Your task to perform on an android device: turn off notifications in google photos Image 0: 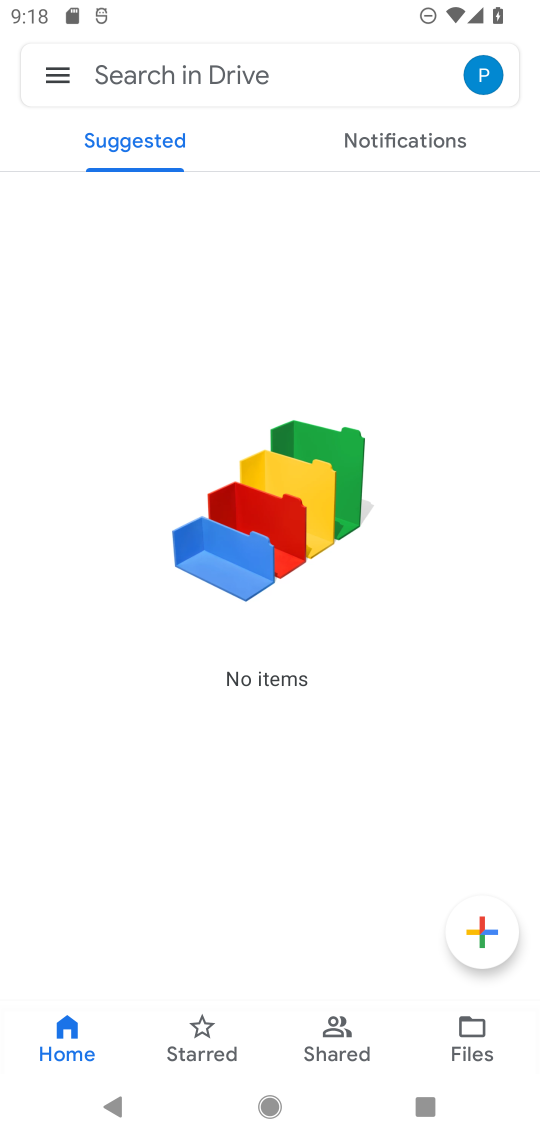
Step 0: click (26, 51)
Your task to perform on an android device: turn off notifications in google photos Image 1: 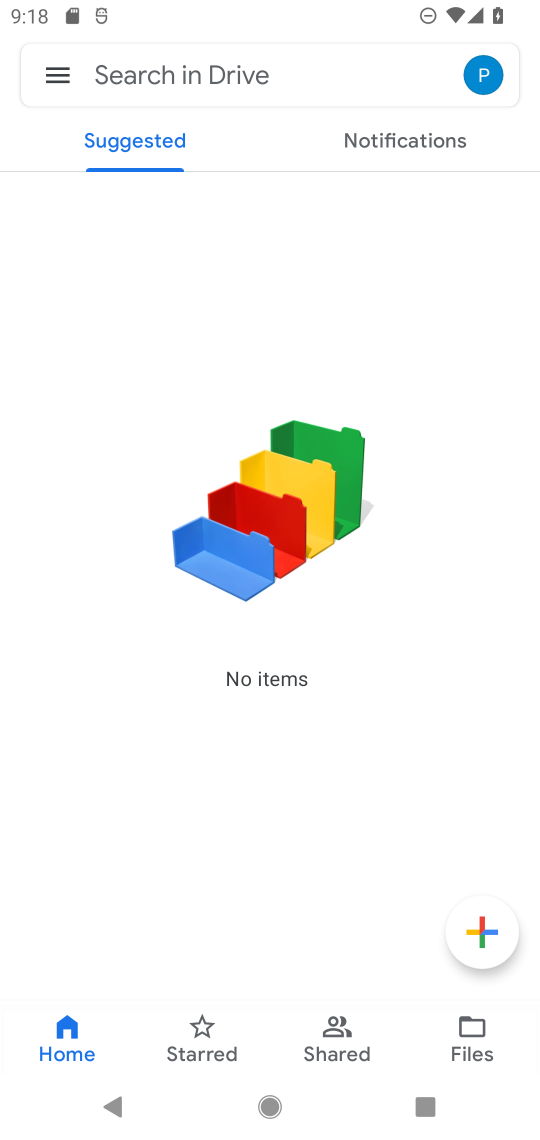
Step 1: click (67, 80)
Your task to perform on an android device: turn off notifications in google photos Image 2: 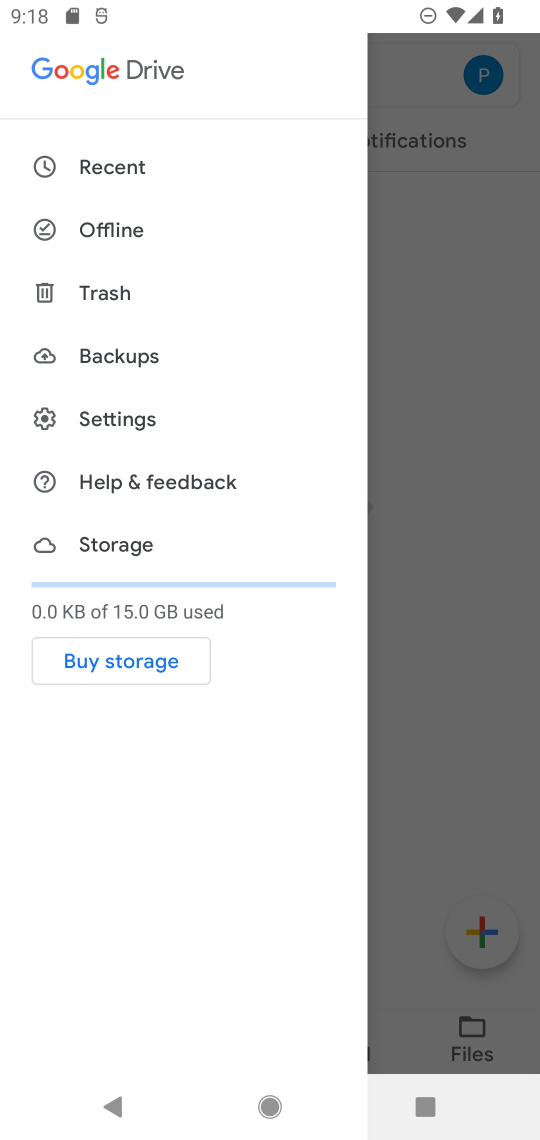
Step 2: click (92, 416)
Your task to perform on an android device: turn off notifications in google photos Image 3: 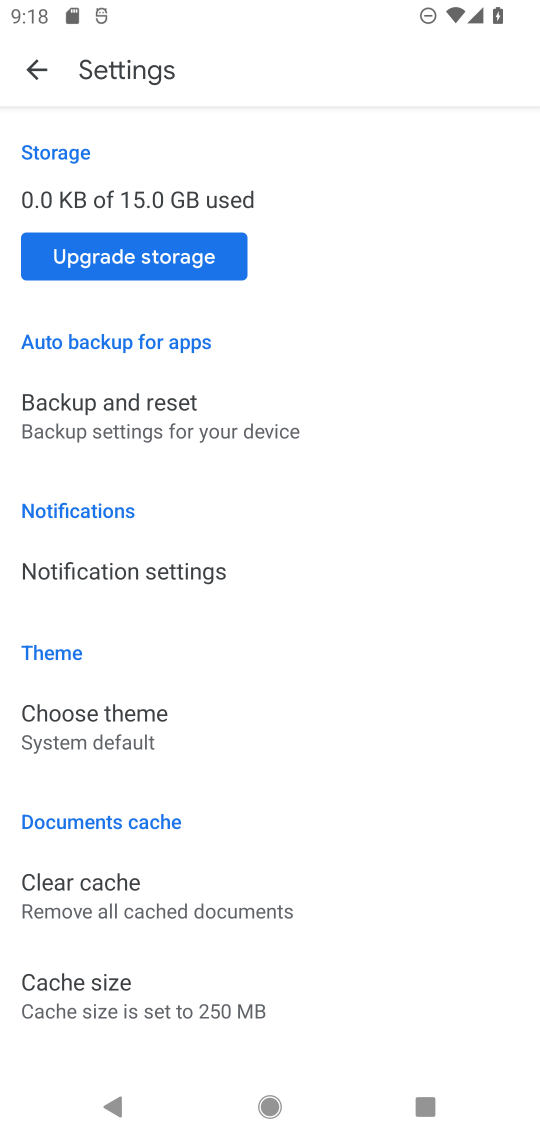
Step 3: click (107, 585)
Your task to perform on an android device: turn off notifications in google photos Image 4: 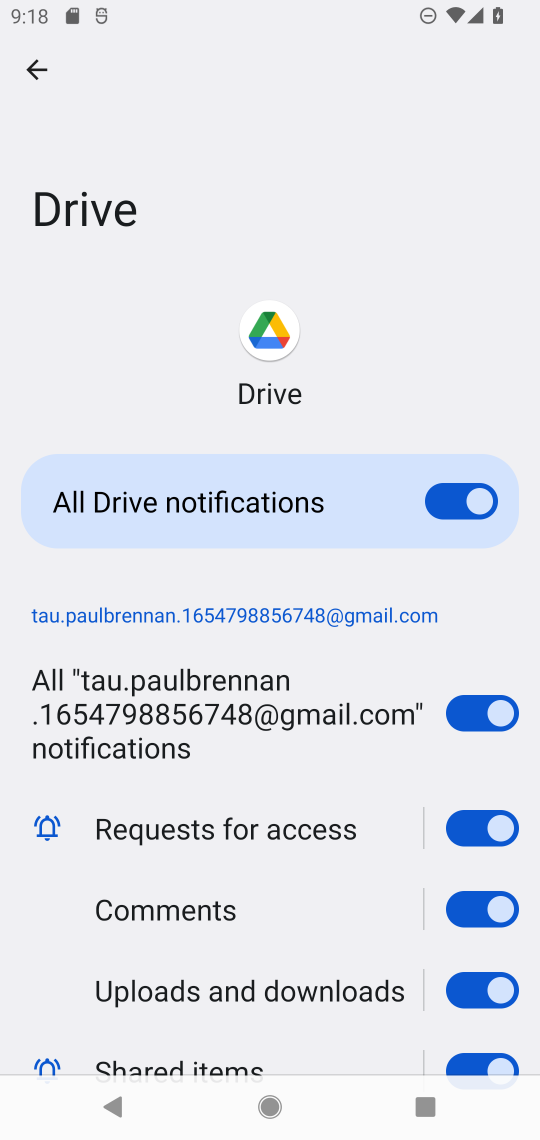
Step 4: click (473, 494)
Your task to perform on an android device: turn off notifications in google photos Image 5: 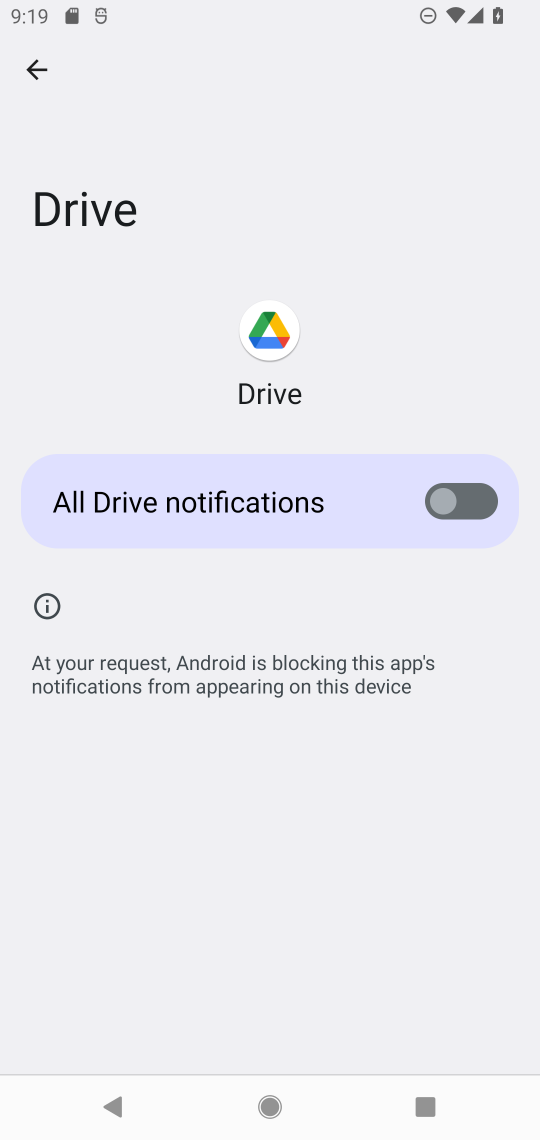
Step 5: task complete